Your task to perform on an android device: Open Youtube and go to the subscriptions tab Image 0: 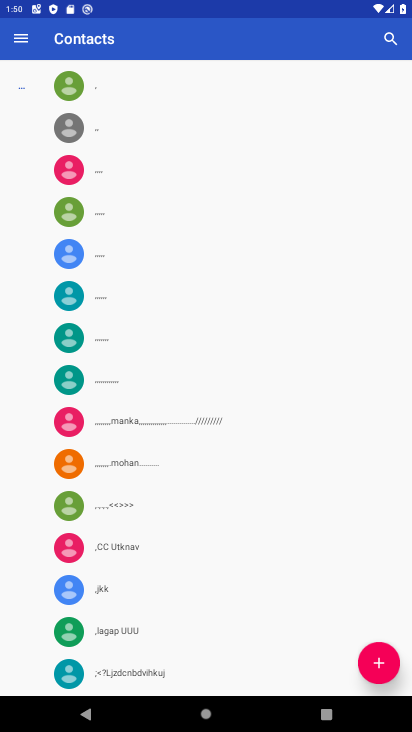
Step 0: press home button
Your task to perform on an android device: Open Youtube and go to the subscriptions tab Image 1: 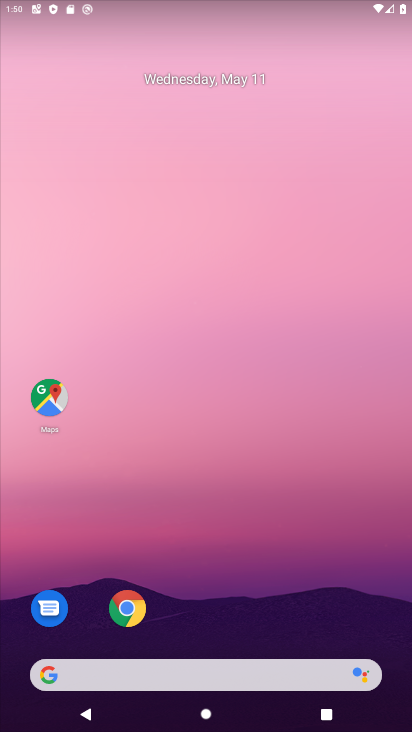
Step 1: drag from (273, 468) to (273, 199)
Your task to perform on an android device: Open Youtube and go to the subscriptions tab Image 2: 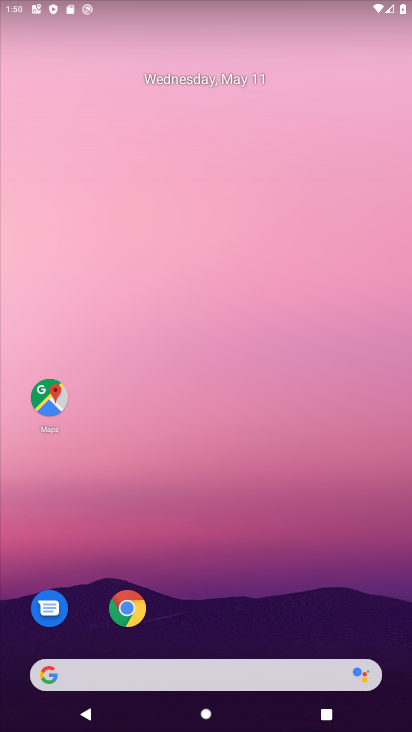
Step 2: drag from (281, 665) to (208, 160)
Your task to perform on an android device: Open Youtube and go to the subscriptions tab Image 3: 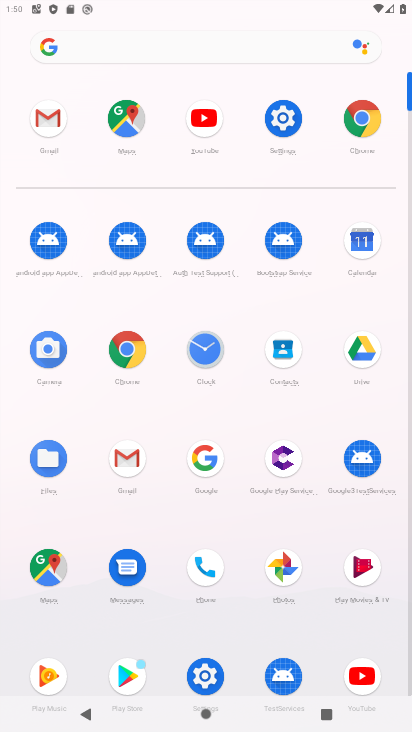
Step 3: click (202, 106)
Your task to perform on an android device: Open Youtube and go to the subscriptions tab Image 4: 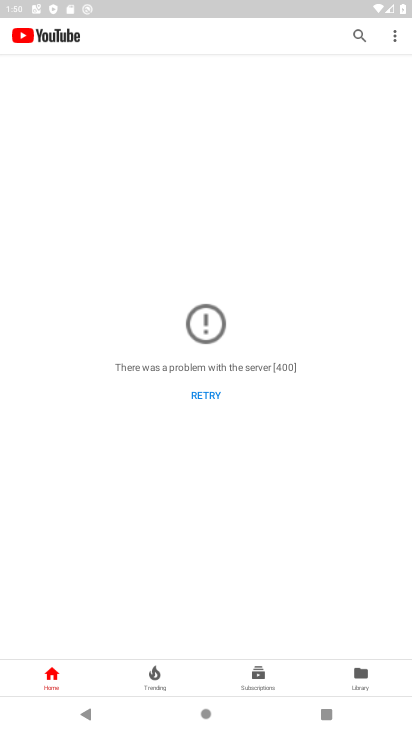
Step 4: task complete